Your task to perform on an android device: check out phone information Image 0: 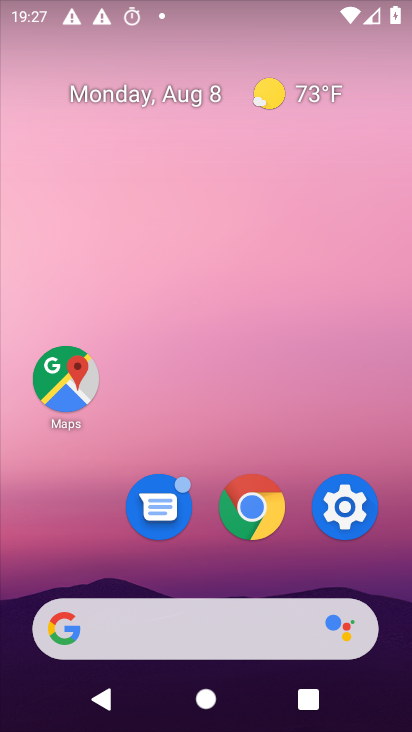
Step 0: drag from (263, 643) to (238, 160)
Your task to perform on an android device: check out phone information Image 1: 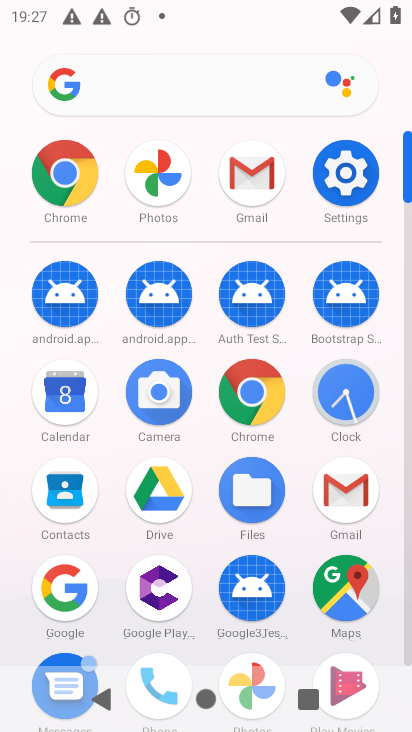
Step 1: click (335, 165)
Your task to perform on an android device: check out phone information Image 2: 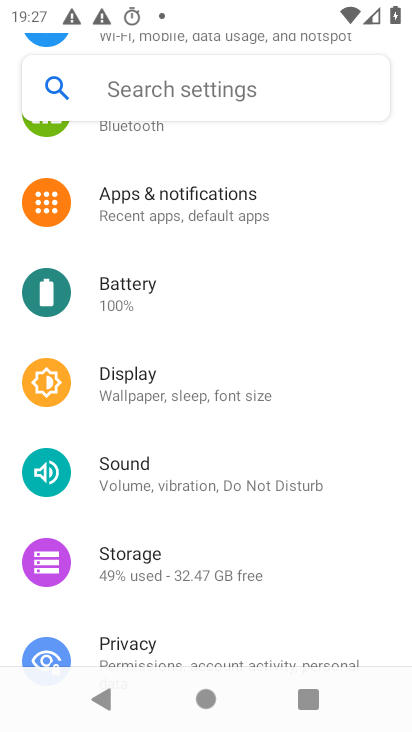
Step 2: click (181, 95)
Your task to perform on an android device: check out phone information Image 3: 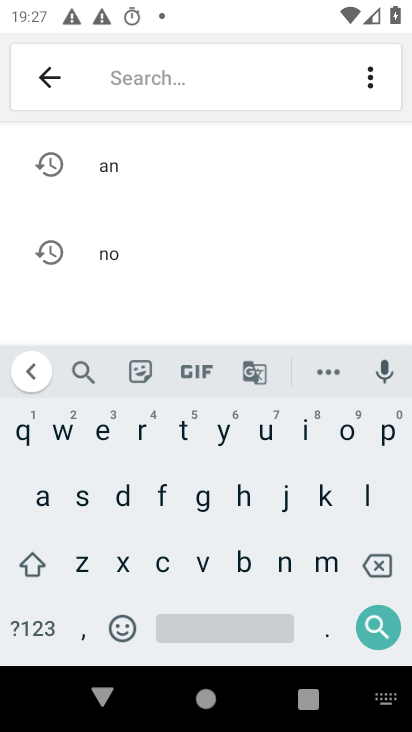
Step 3: click (35, 501)
Your task to perform on an android device: check out phone information Image 4: 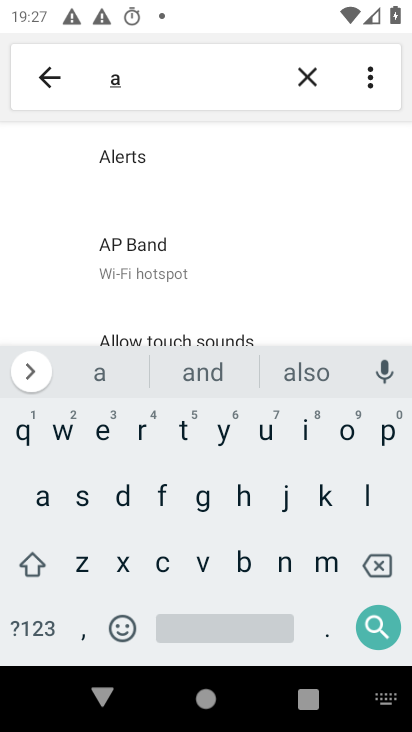
Step 4: click (235, 560)
Your task to perform on an android device: check out phone information Image 5: 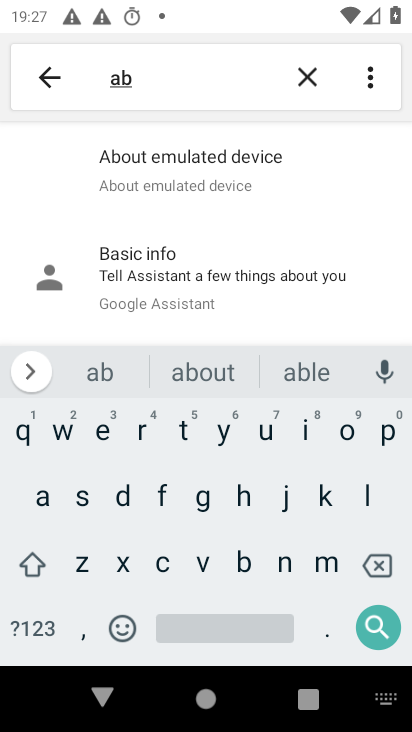
Step 5: click (226, 173)
Your task to perform on an android device: check out phone information Image 6: 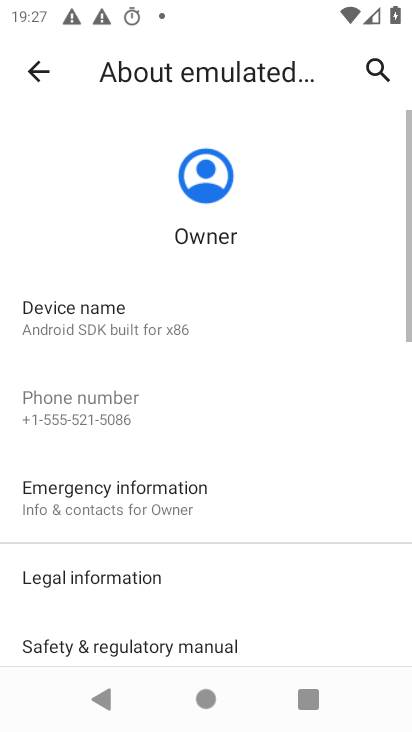
Step 6: task complete